Your task to perform on an android device: When is my next appointment? Image 0: 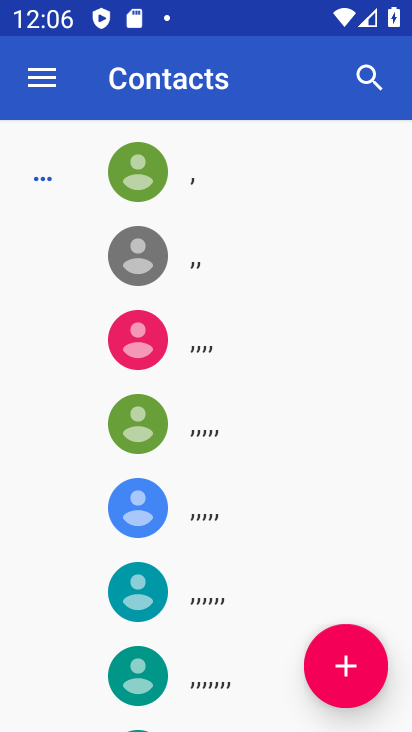
Step 0: press home button
Your task to perform on an android device: When is my next appointment? Image 1: 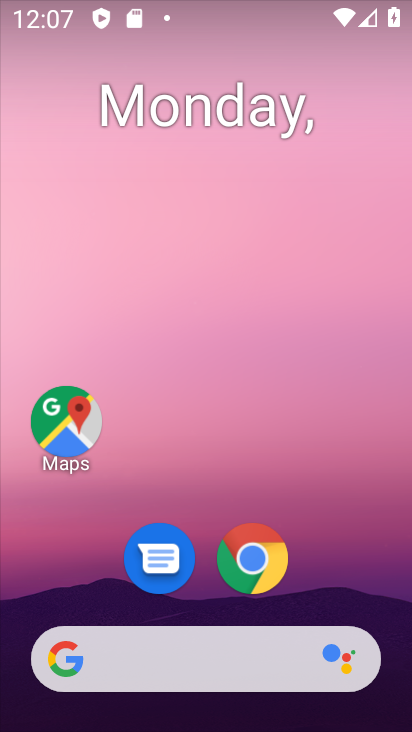
Step 1: drag from (363, 588) to (356, 137)
Your task to perform on an android device: When is my next appointment? Image 2: 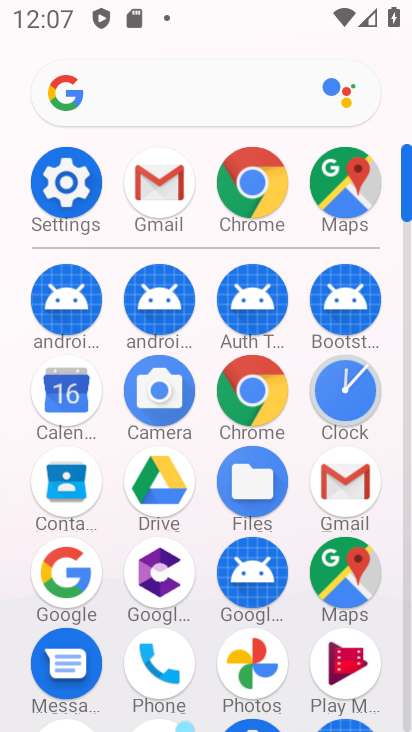
Step 2: click (68, 397)
Your task to perform on an android device: When is my next appointment? Image 3: 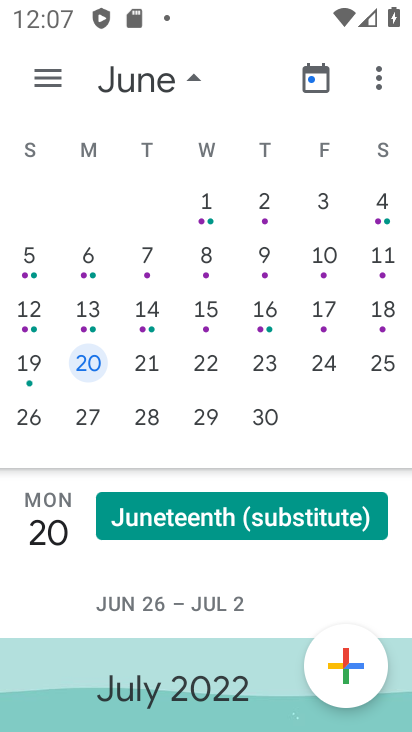
Step 3: click (195, 76)
Your task to perform on an android device: When is my next appointment? Image 4: 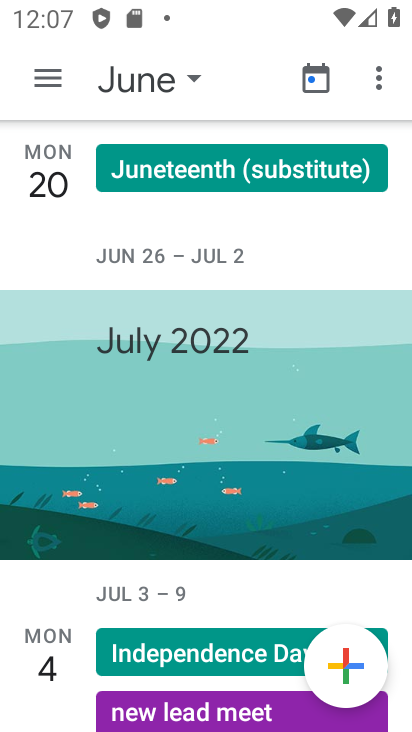
Step 4: click (195, 76)
Your task to perform on an android device: When is my next appointment? Image 5: 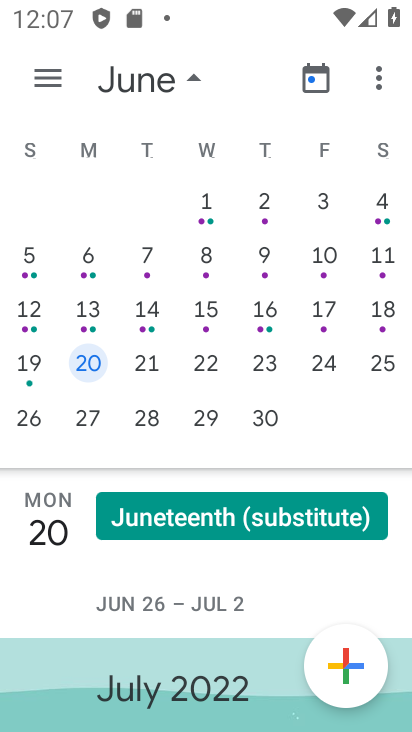
Step 5: drag from (49, 214) to (401, 226)
Your task to perform on an android device: When is my next appointment? Image 6: 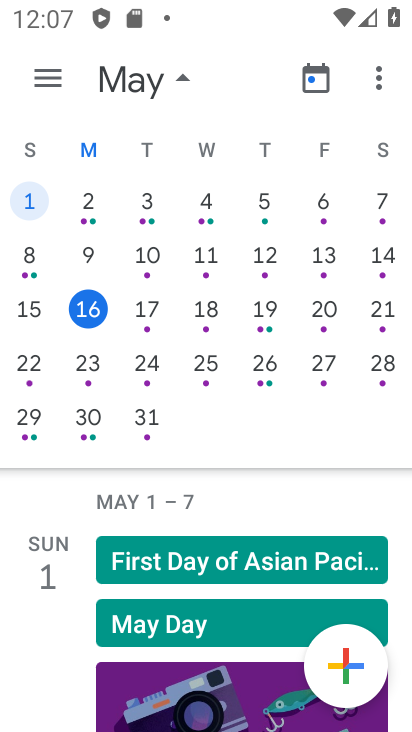
Step 6: drag from (21, 170) to (392, 453)
Your task to perform on an android device: When is my next appointment? Image 7: 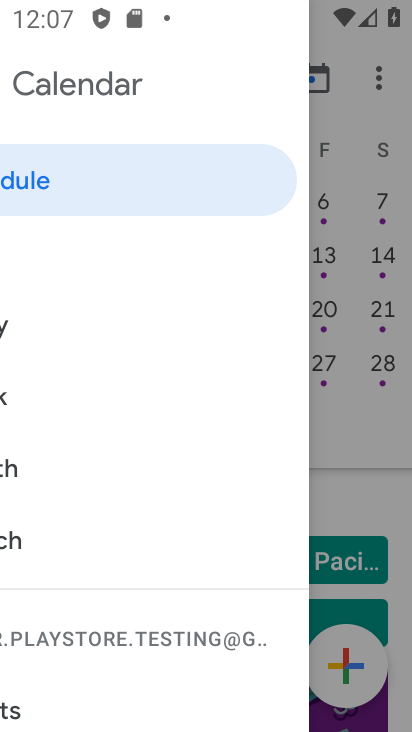
Step 7: click (342, 449)
Your task to perform on an android device: When is my next appointment? Image 8: 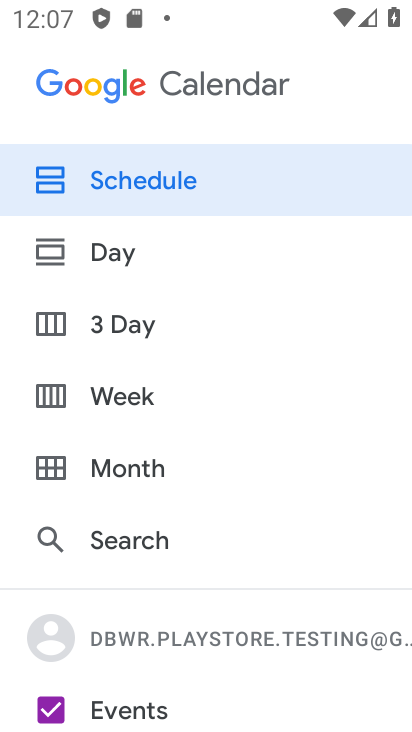
Step 8: click (153, 186)
Your task to perform on an android device: When is my next appointment? Image 9: 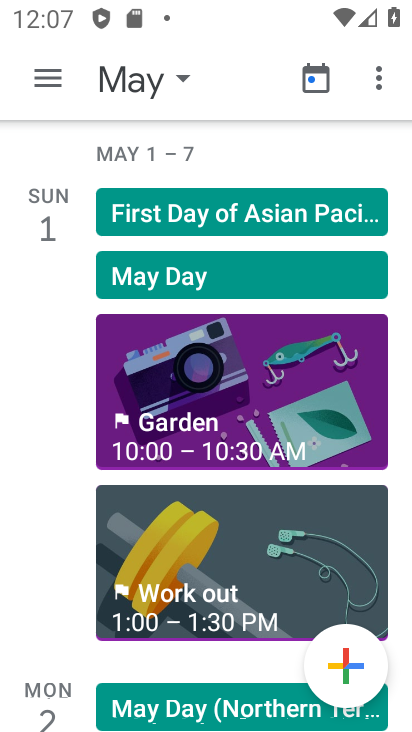
Step 9: click (180, 77)
Your task to perform on an android device: When is my next appointment? Image 10: 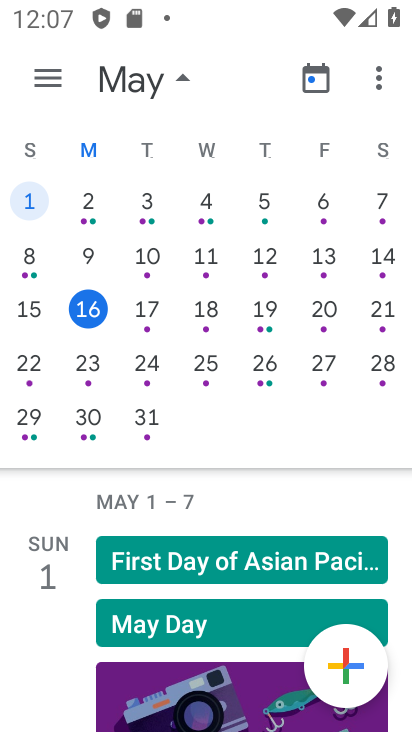
Step 10: click (91, 307)
Your task to perform on an android device: When is my next appointment? Image 11: 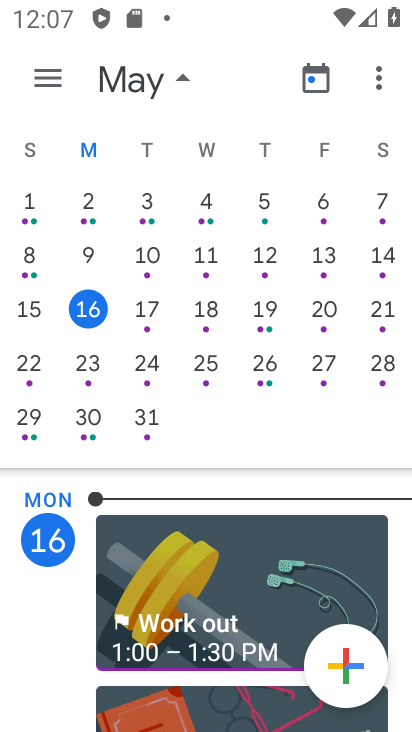
Step 11: click (249, 618)
Your task to perform on an android device: When is my next appointment? Image 12: 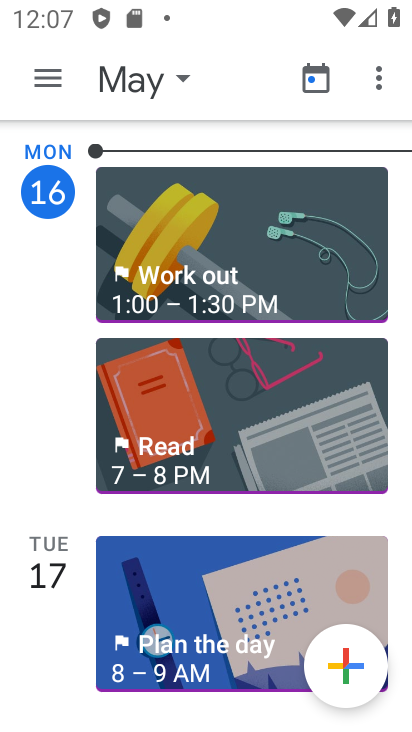
Step 12: click (198, 415)
Your task to perform on an android device: When is my next appointment? Image 13: 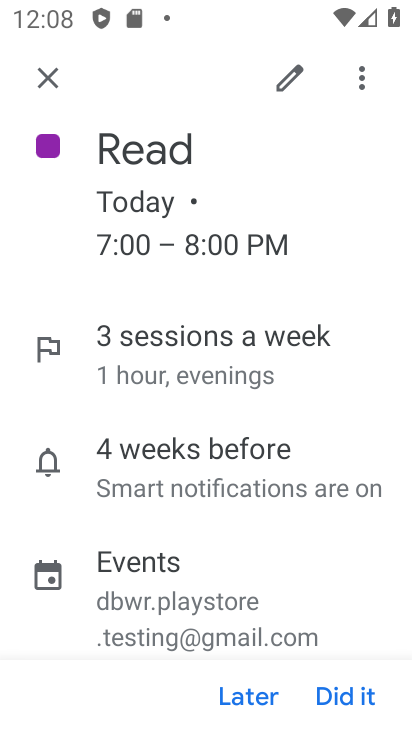
Step 13: task complete